Your task to perform on an android device: turn smart compose on in the gmail app Image 0: 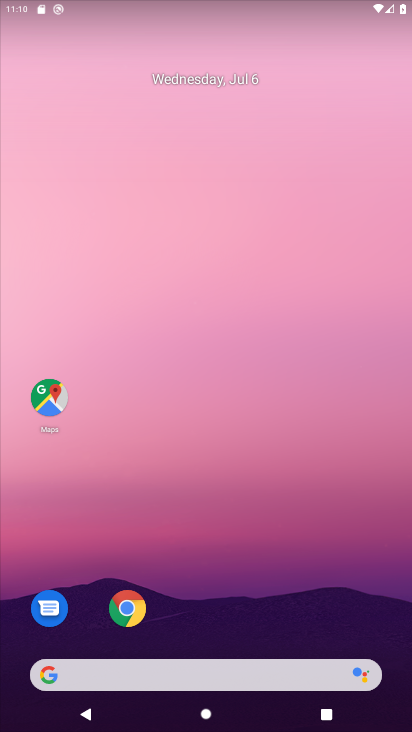
Step 0: drag from (260, 588) to (271, 52)
Your task to perform on an android device: turn smart compose on in the gmail app Image 1: 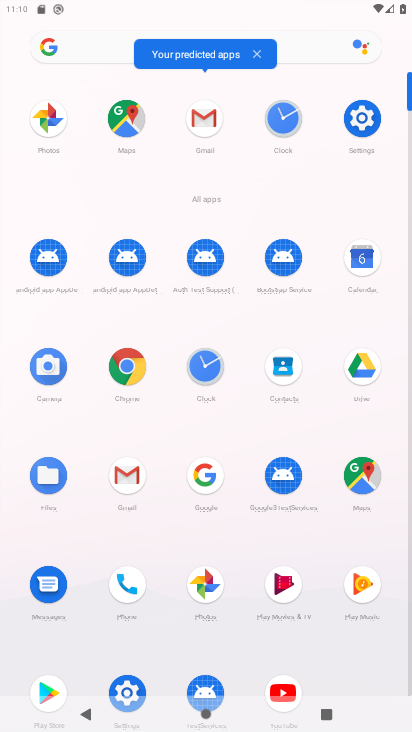
Step 1: click (124, 472)
Your task to perform on an android device: turn smart compose on in the gmail app Image 2: 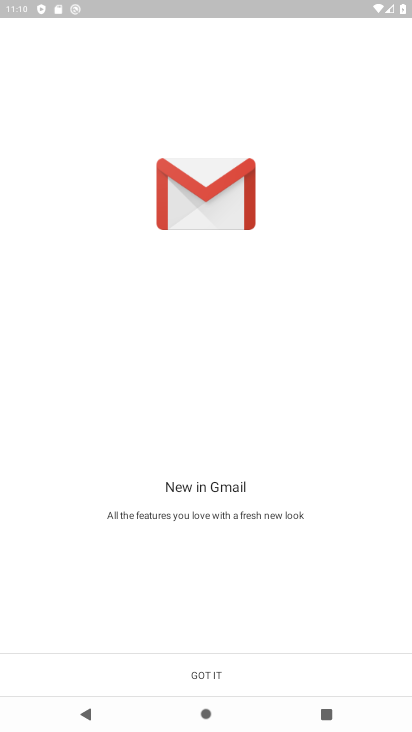
Step 2: click (185, 678)
Your task to perform on an android device: turn smart compose on in the gmail app Image 3: 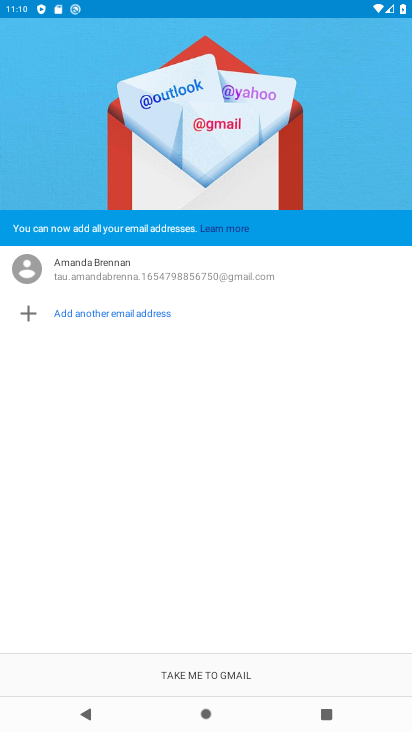
Step 3: click (185, 677)
Your task to perform on an android device: turn smart compose on in the gmail app Image 4: 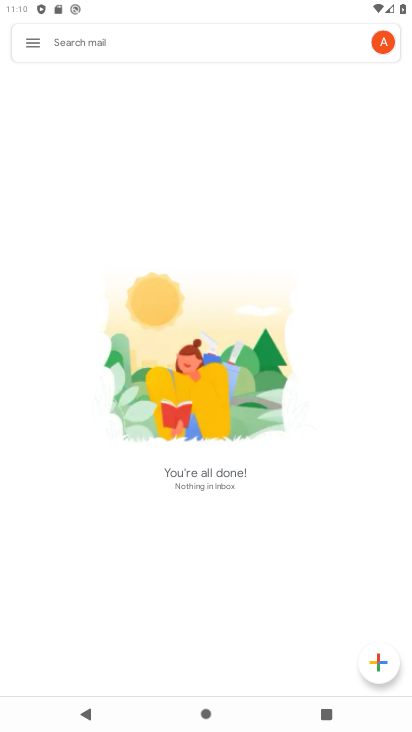
Step 4: click (27, 40)
Your task to perform on an android device: turn smart compose on in the gmail app Image 5: 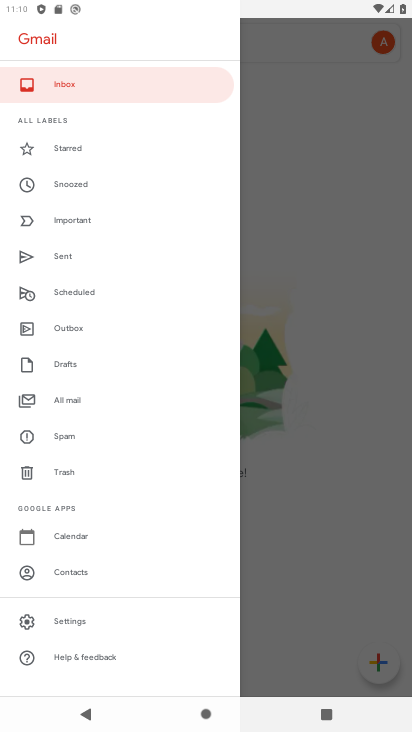
Step 5: drag from (178, 589) to (168, 216)
Your task to perform on an android device: turn smart compose on in the gmail app Image 6: 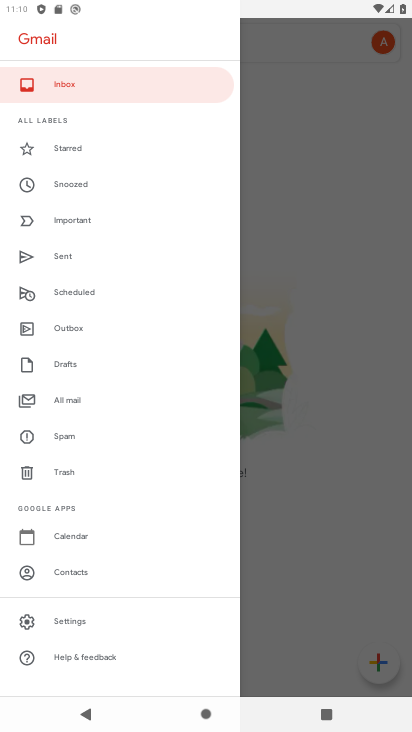
Step 6: click (75, 619)
Your task to perform on an android device: turn smart compose on in the gmail app Image 7: 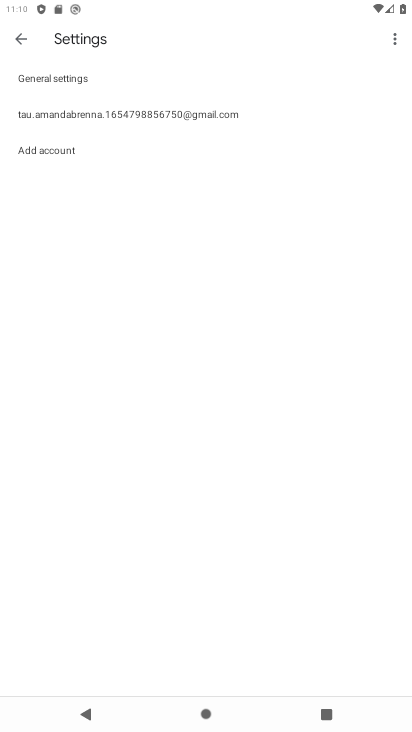
Step 7: click (110, 114)
Your task to perform on an android device: turn smart compose on in the gmail app Image 8: 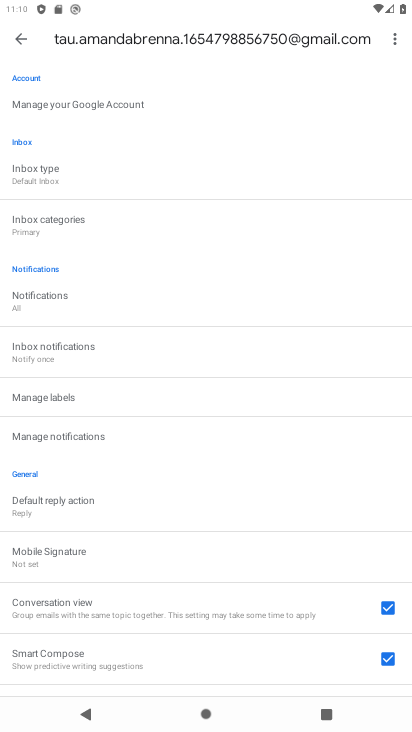
Step 8: task complete